Your task to perform on an android device: Open calendar and show me the third week of next month Image 0: 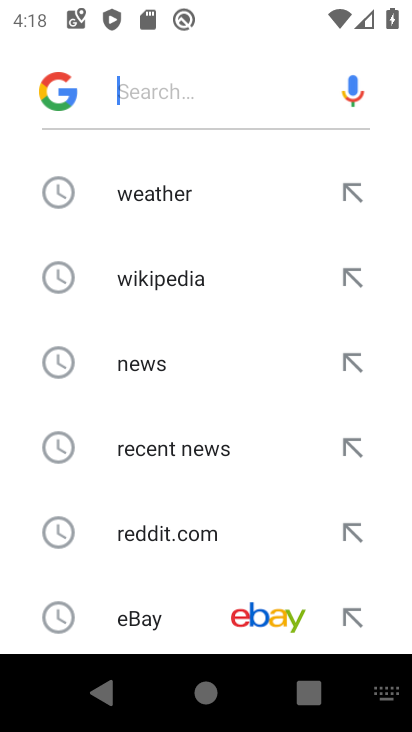
Step 0: press home button
Your task to perform on an android device: Open calendar and show me the third week of next month Image 1: 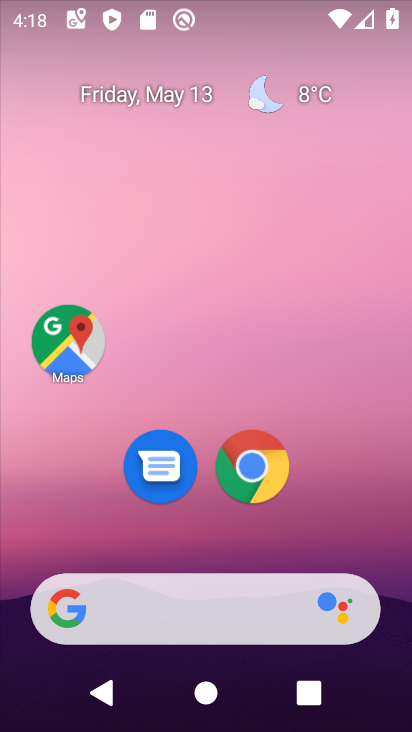
Step 1: drag from (361, 531) to (289, 48)
Your task to perform on an android device: Open calendar and show me the third week of next month Image 2: 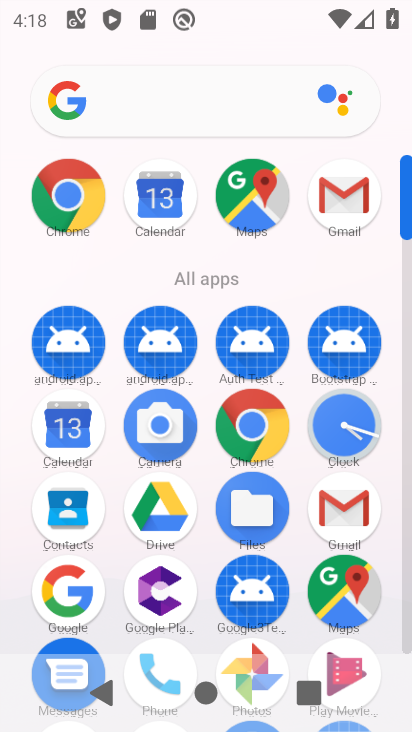
Step 2: click (63, 429)
Your task to perform on an android device: Open calendar and show me the third week of next month Image 3: 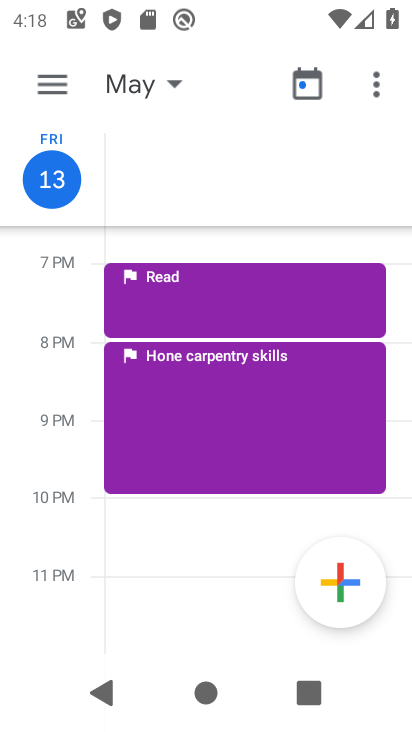
Step 3: click (54, 91)
Your task to perform on an android device: Open calendar and show me the third week of next month Image 4: 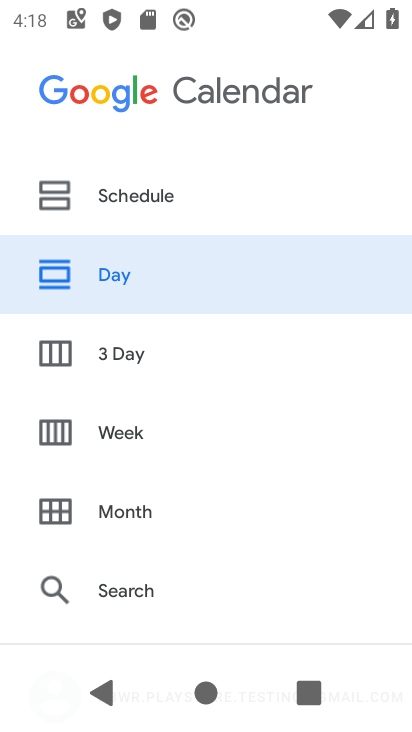
Step 4: click (128, 433)
Your task to perform on an android device: Open calendar and show me the third week of next month Image 5: 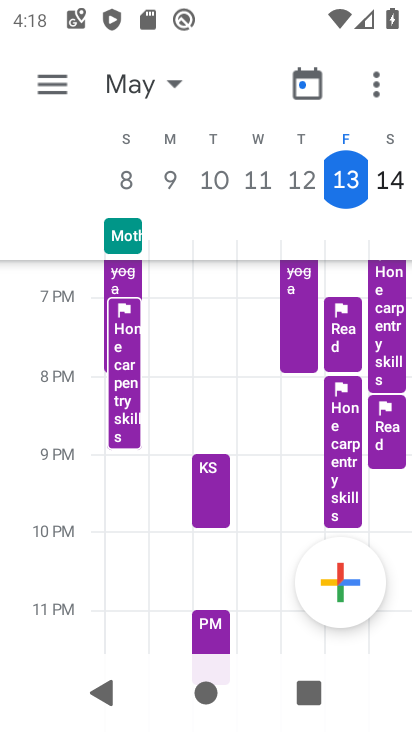
Step 5: click (171, 80)
Your task to perform on an android device: Open calendar and show me the third week of next month Image 6: 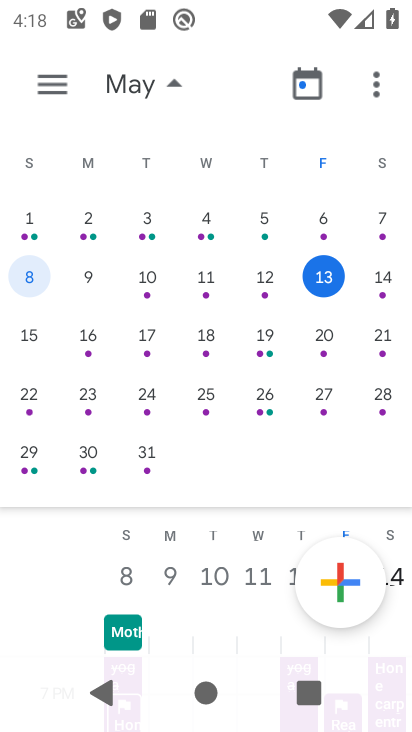
Step 6: drag from (370, 345) to (2, 251)
Your task to perform on an android device: Open calendar and show me the third week of next month Image 7: 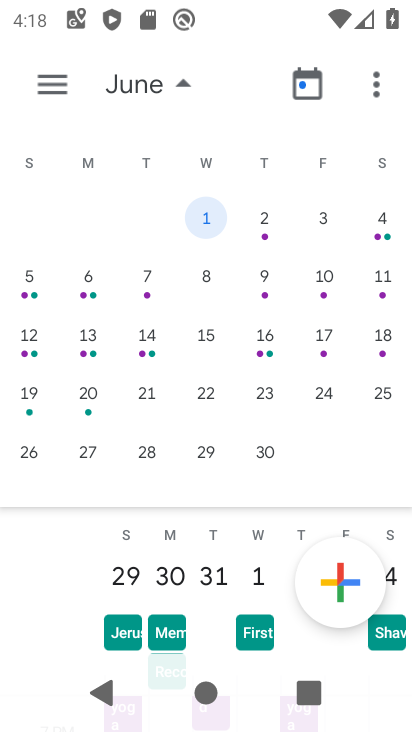
Step 7: click (23, 341)
Your task to perform on an android device: Open calendar and show me the third week of next month Image 8: 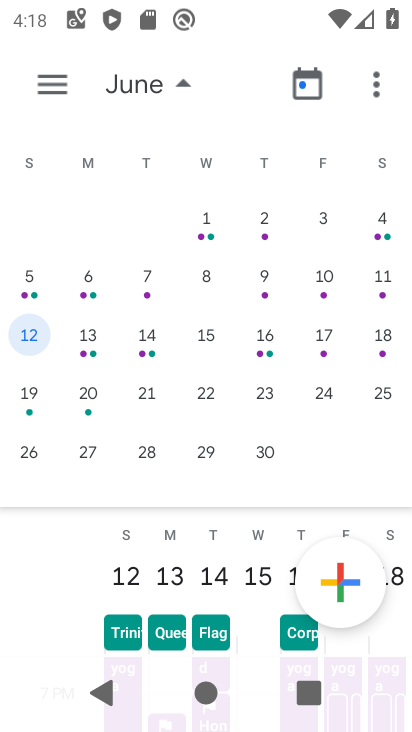
Step 8: task complete